Your task to perform on an android device: open device folders in google photos Image 0: 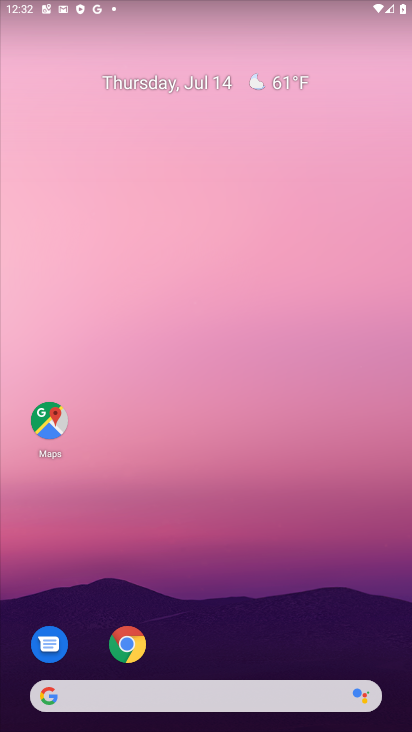
Step 0: drag from (269, 613) to (304, 4)
Your task to perform on an android device: open device folders in google photos Image 1: 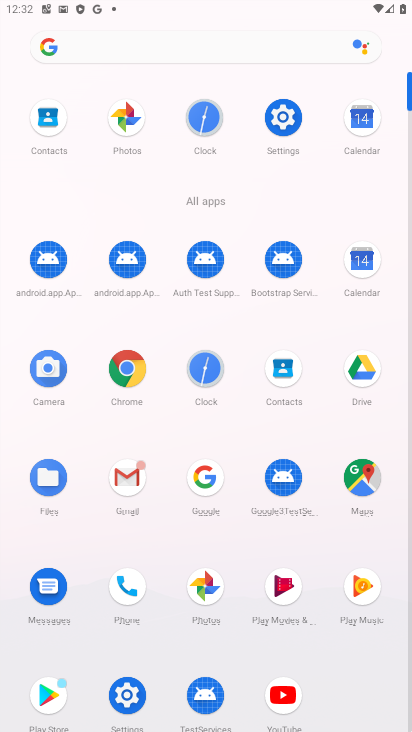
Step 1: click (193, 590)
Your task to perform on an android device: open device folders in google photos Image 2: 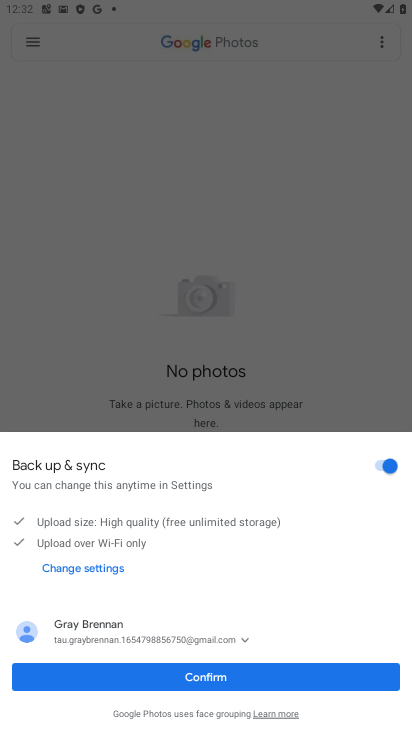
Step 2: click (203, 681)
Your task to perform on an android device: open device folders in google photos Image 3: 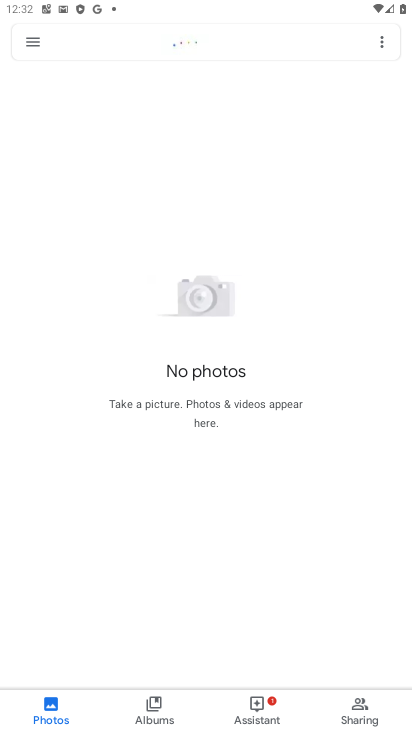
Step 3: click (32, 51)
Your task to perform on an android device: open device folders in google photos Image 4: 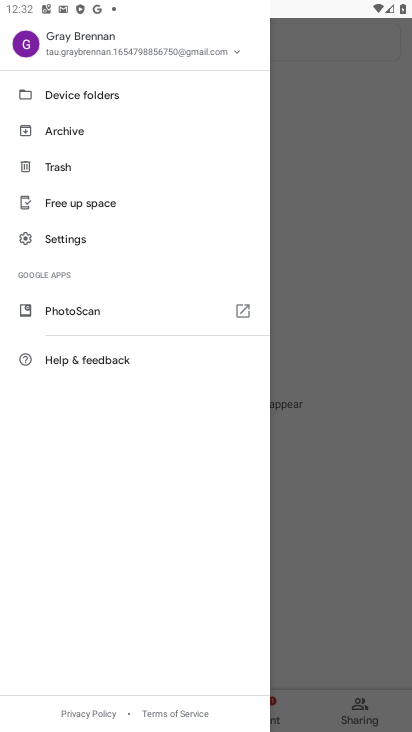
Step 4: click (123, 96)
Your task to perform on an android device: open device folders in google photos Image 5: 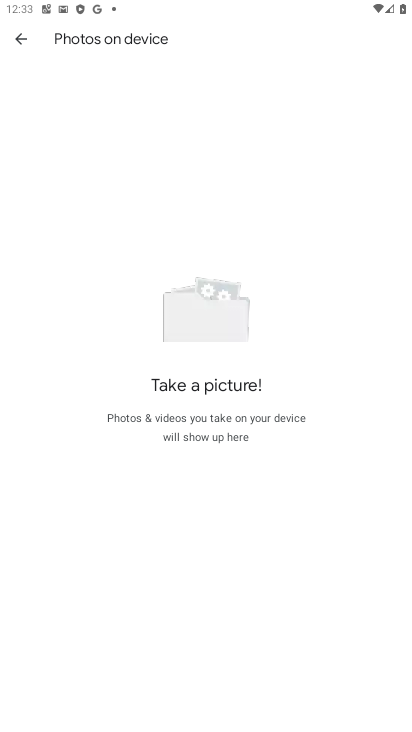
Step 5: task complete